Your task to perform on an android device: Open CNN.com Image 0: 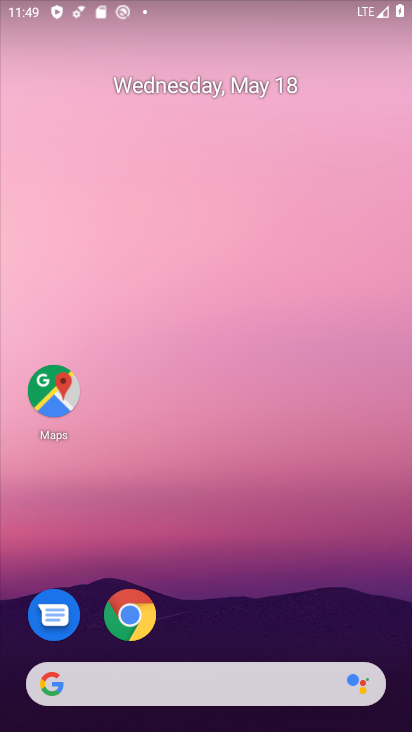
Step 0: drag from (208, 523) to (176, 40)
Your task to perform on an android device: Open CNN.com Image 1: 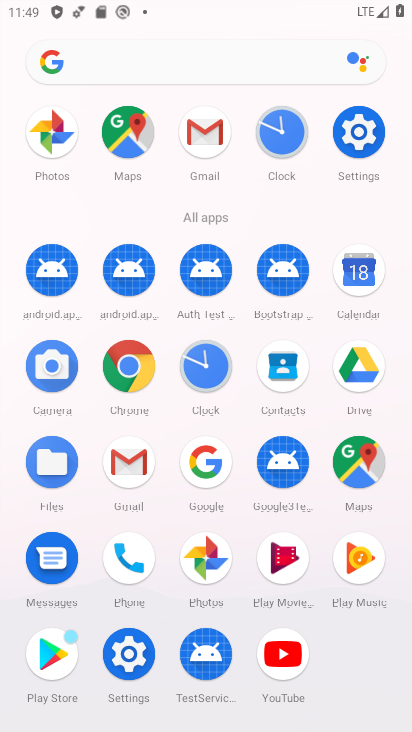
Step 1: drag from (13, 553) to (7, 261)
Your task to perform on an android device: Open CNN.com Image 2: 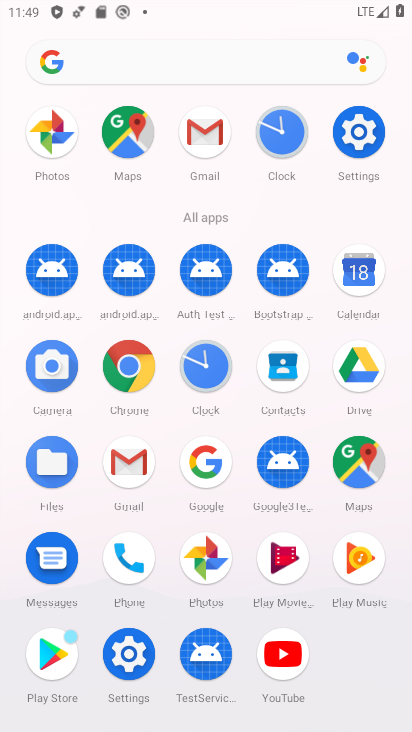
Step 2: click (126, 366)
Your task to perform on an android device: Open CNN.com Image 3: 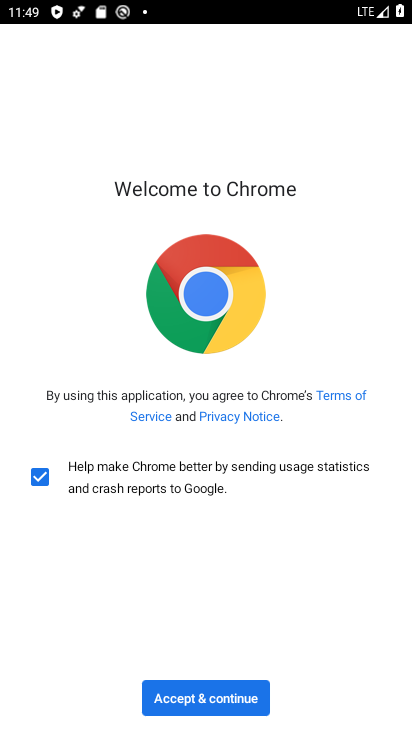
Step 3: click (181, 700)
Your task to perform on an android device: Open CNN.com Image 4: 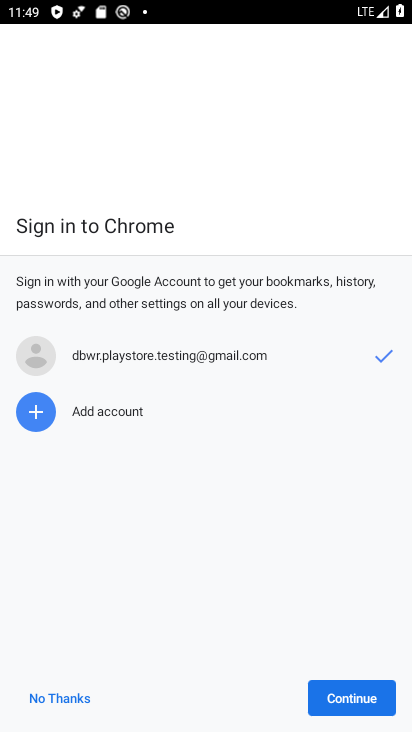
Step 4: click (317, 701)
Your task to perform on an android device: Open CNN.com Image 5: 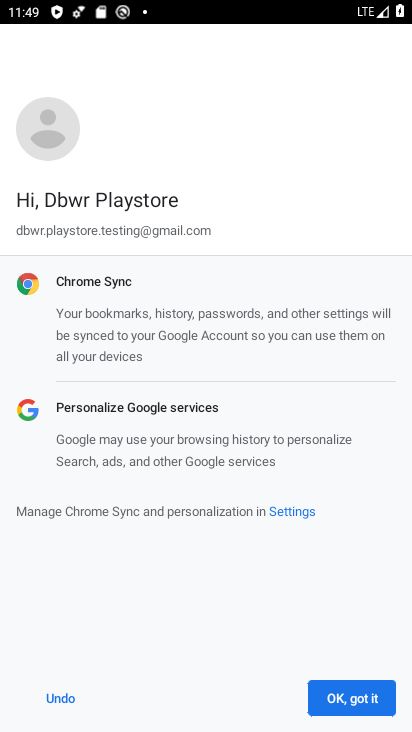
Step 5: click (332, 699)
Your task to perform on an android device: Open CNN.com Image 6: 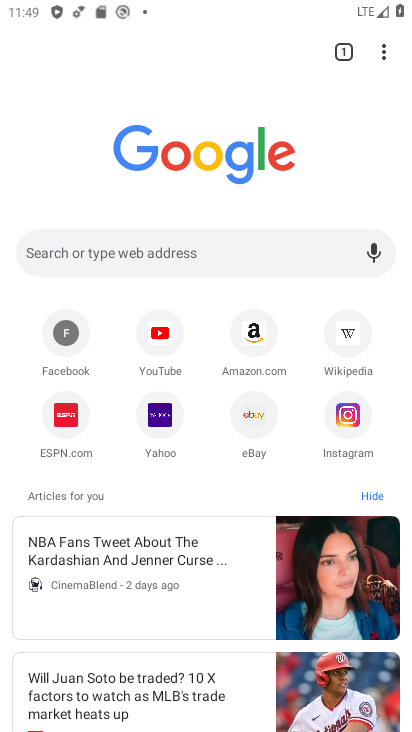
Step 6: click (192, 259)
Your task to perform on an android device: Open CNN.com Image 7: 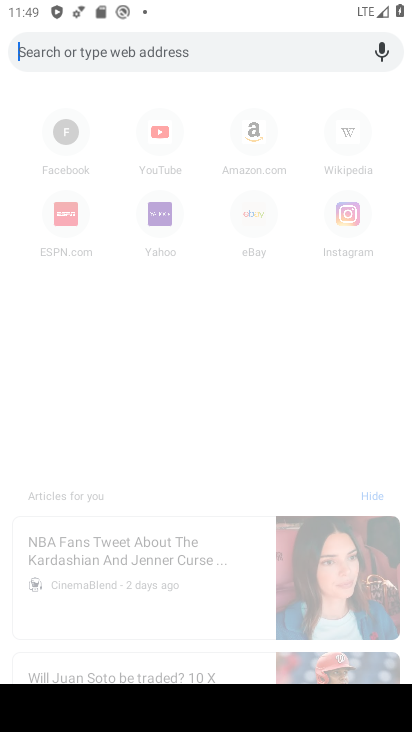
Step 7: type " CNN.com"
Your task to perform on an android device: Open CNN.com Image 8: 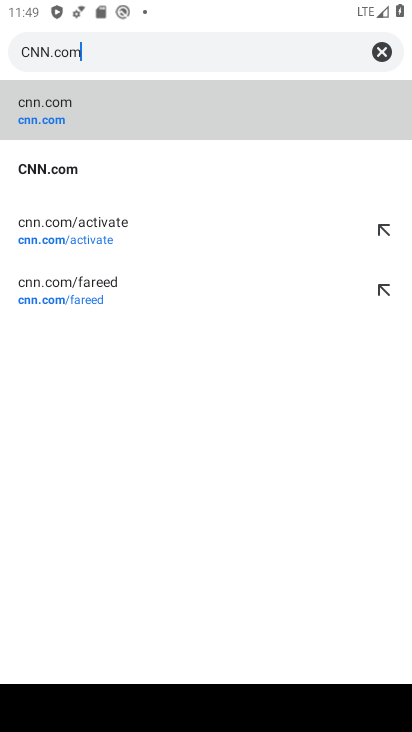
Step 8: type ""
Your task to perform on an android device: Open CNN.com Image 9: 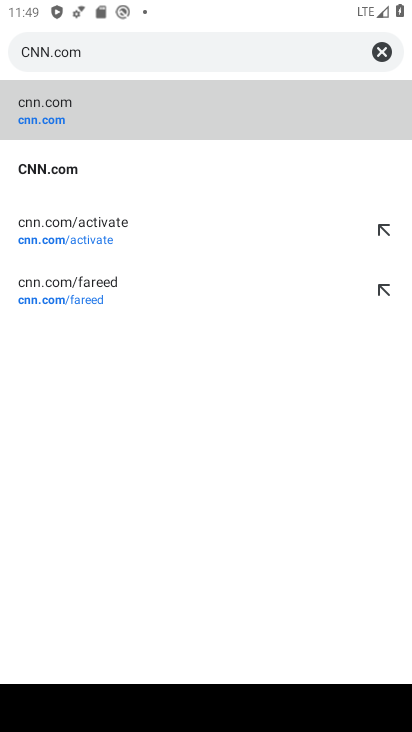
Step 9: click (148, 120)
Your task to perform on an android device: Open CNN.com Image 10: 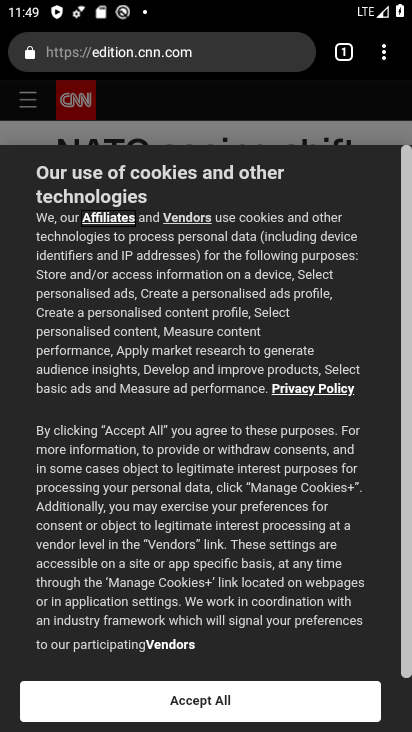
Step 10: click (207, 690)
Your task to perform on an android device: Open CNN.com Image 11: 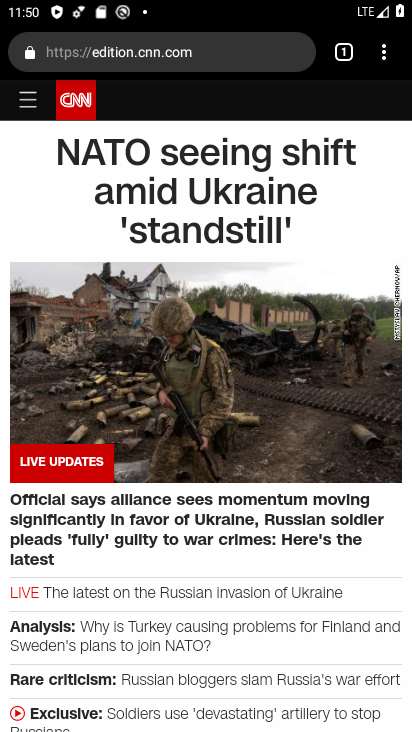
Step 11: task complete